Your task to perform on an android device: open app "Instagram" (install if not already installed) and enter user name: "nobler@yahoo.com" and password: "foraging" Image 0: 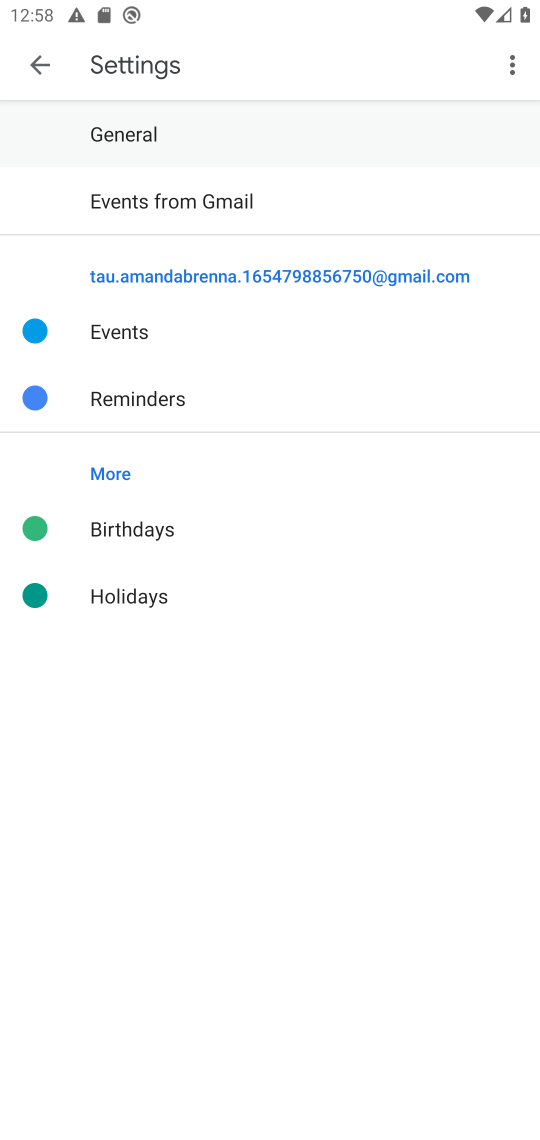
Step 0: press home button
Your task to perform on an android device: open app "Instagram" (install if not already installed) and enter user name: "nobler@yahoo.com" and password: "foraging" Image 1: 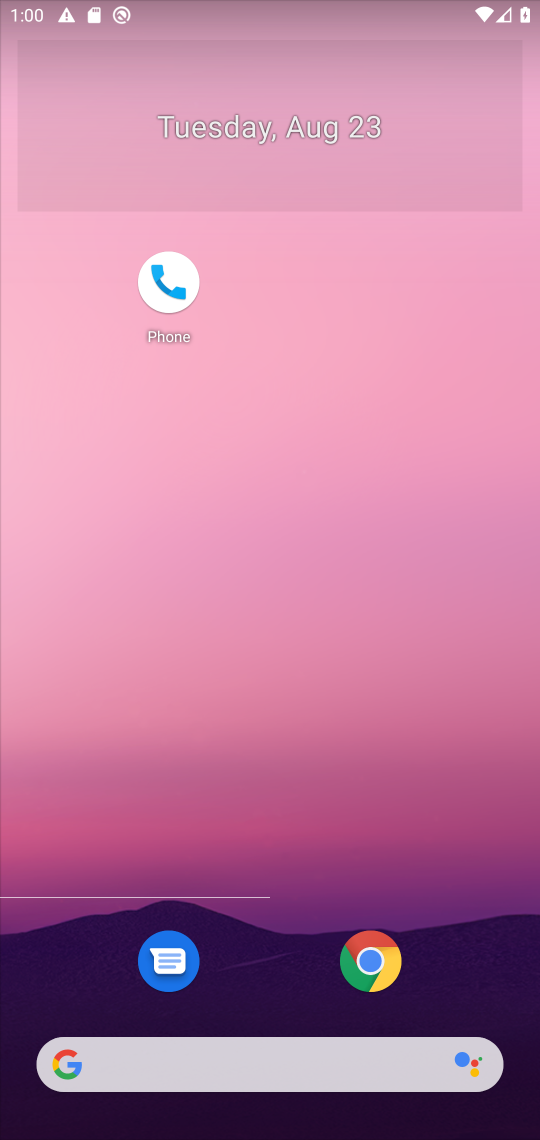
Step 1: task complete